Your task to perform on an android device: turn off data saver in the chrome app Image 0: 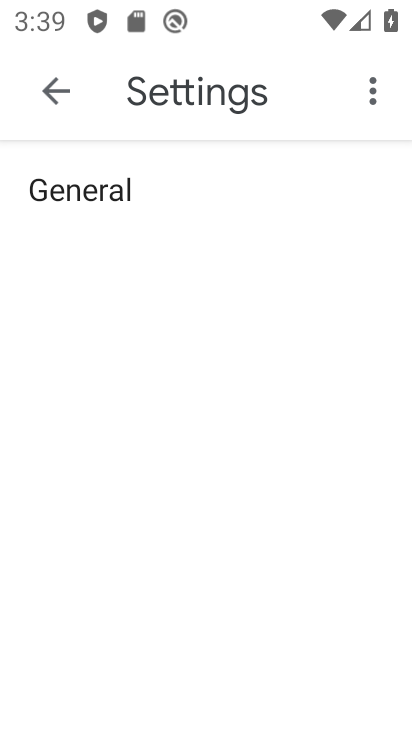
Step 0: press home button
Your task to perform on an android device: turn off data saver in the chrome app Image 1: 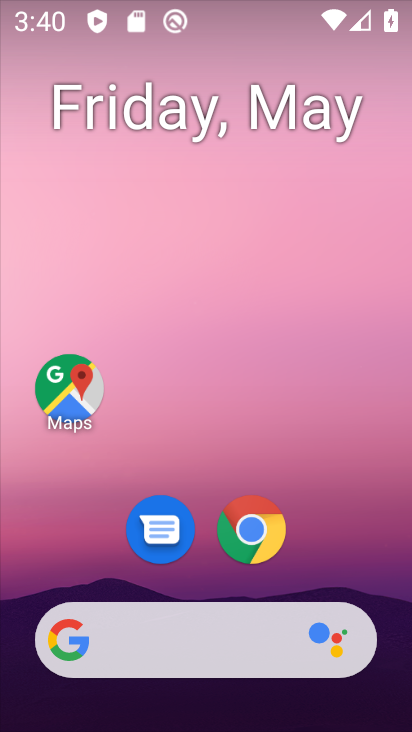
Step 1: click (278, 521)
Your task to perform on an android device: turn off data saver in the chrome app Image 2: 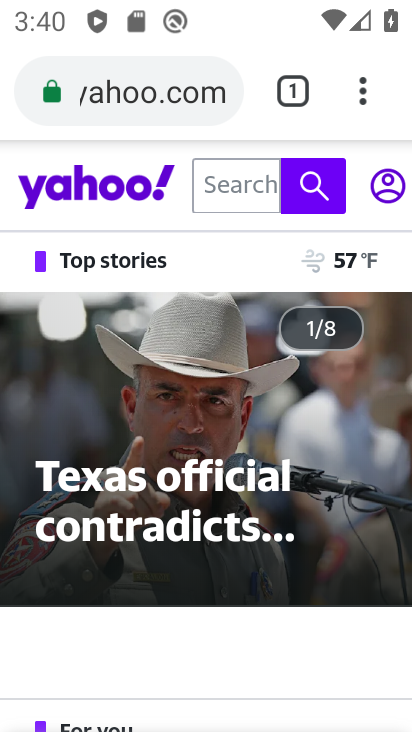
Step 2: click (364, 107)
Your task to perform on an android device: turn off data saver in the chrome app Image 3: 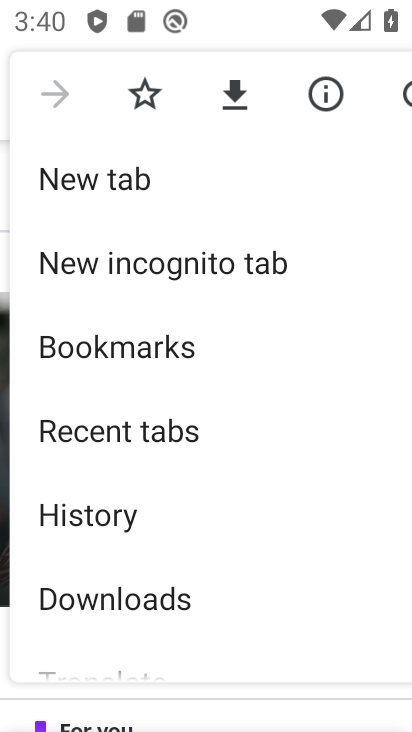
Step 3: drag from (207, 518) to (286, 32)
Your task to perform on an android device: turn off data saver in the chrome app Image 4: 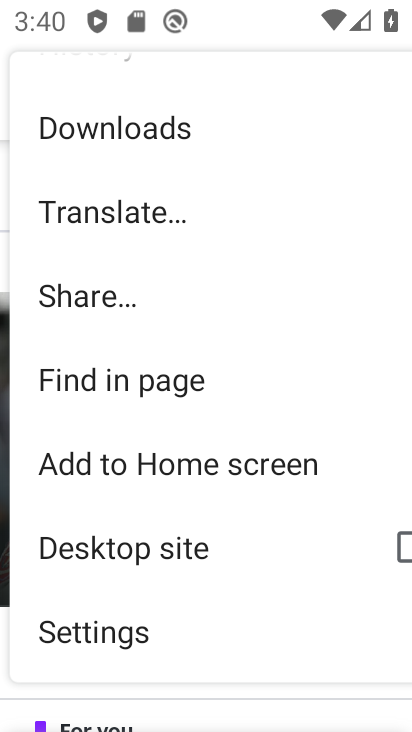
Step 4: click (122, 628)
Your task to perform on an android device: turn off data saver in the chrome app Image 5: 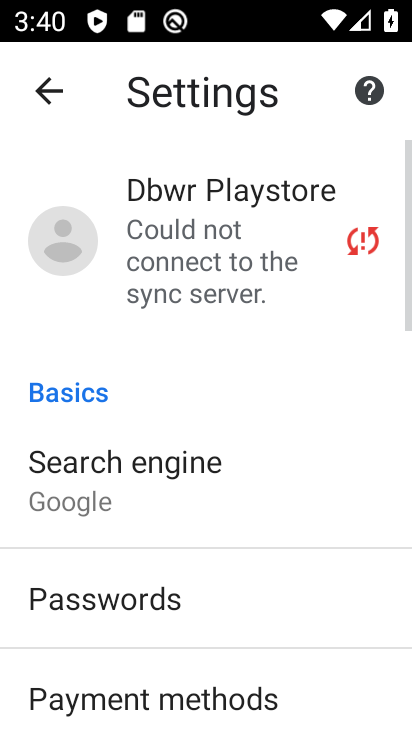
Step 5: drag from (122, 628) to (235, 263)
Your task to perform on an android device: turn off data saver in the chrome app Image 6: 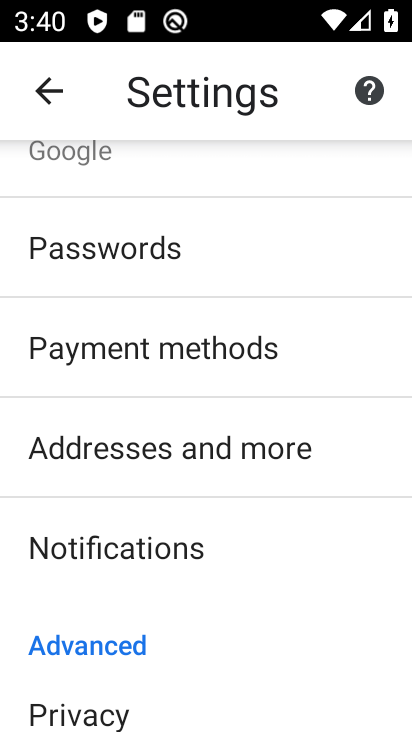
Step 6: drag from (105, 625) to (140, 486)
Your task to perform on an android device: turn off data saver in the chrome app Image 7: 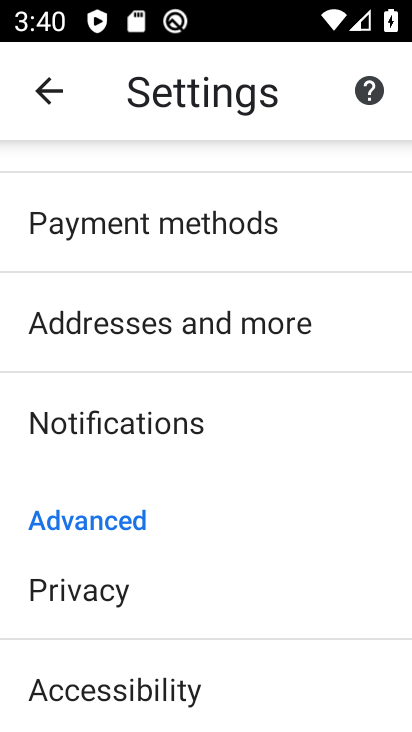
Step 7: drag from (105, 665) to (181, 452)
Your task to perform on an android device: turn off data saver in the chrome app Image 8: 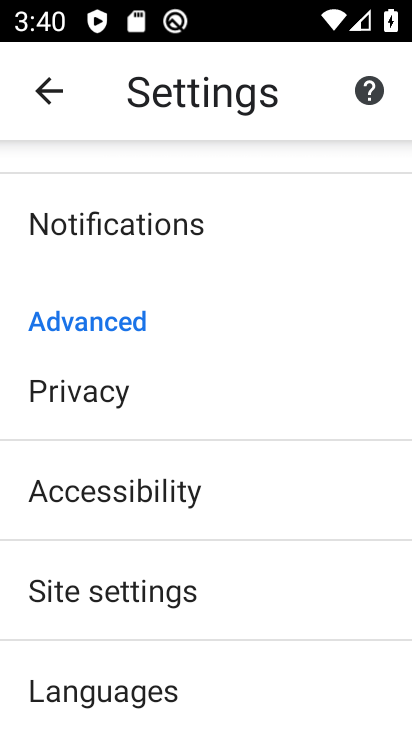
Step 8: drag from (113, 686) to (139, 625)
Your task to perform on an android device: turn off data saver in the chrome app Image 9: 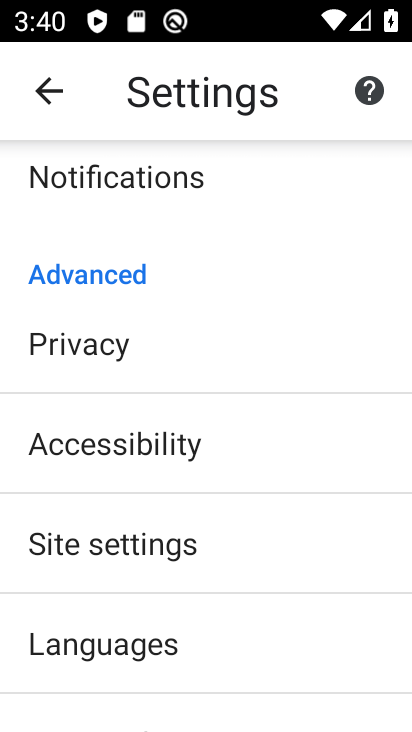
Step 9: drag from (139, 658) to (305, 100)
Your task to perform on an android device: turn off data saver in the chrome app Image 10: 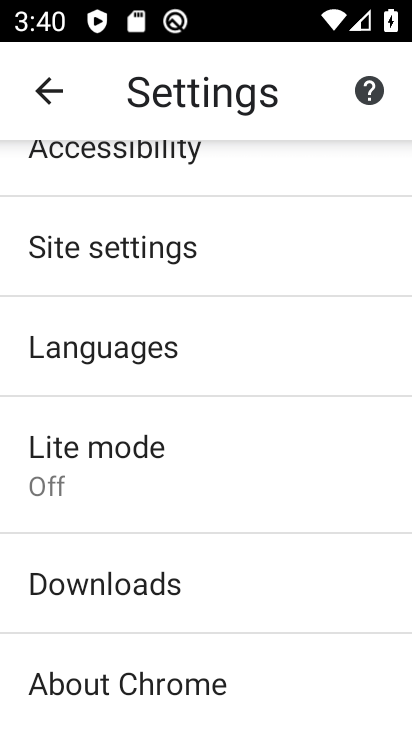
Step 10: click (217, 455)
Your task to perform on an android device: turn off data saver in the chrome app Image 11: 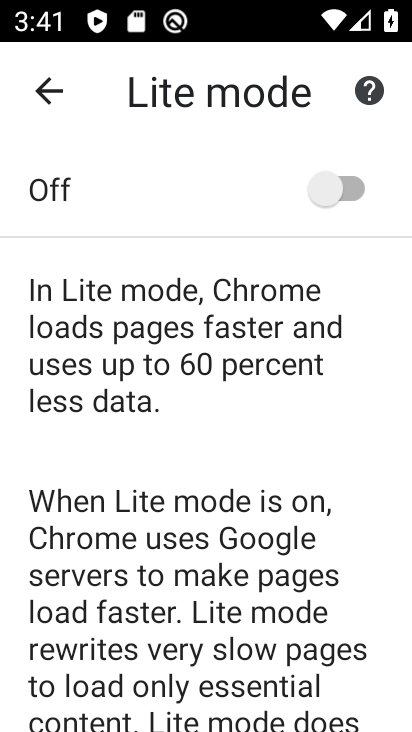
Step 11: task complete